Your task to perform on an android device: turn on data saver in the chrome app Image 0: 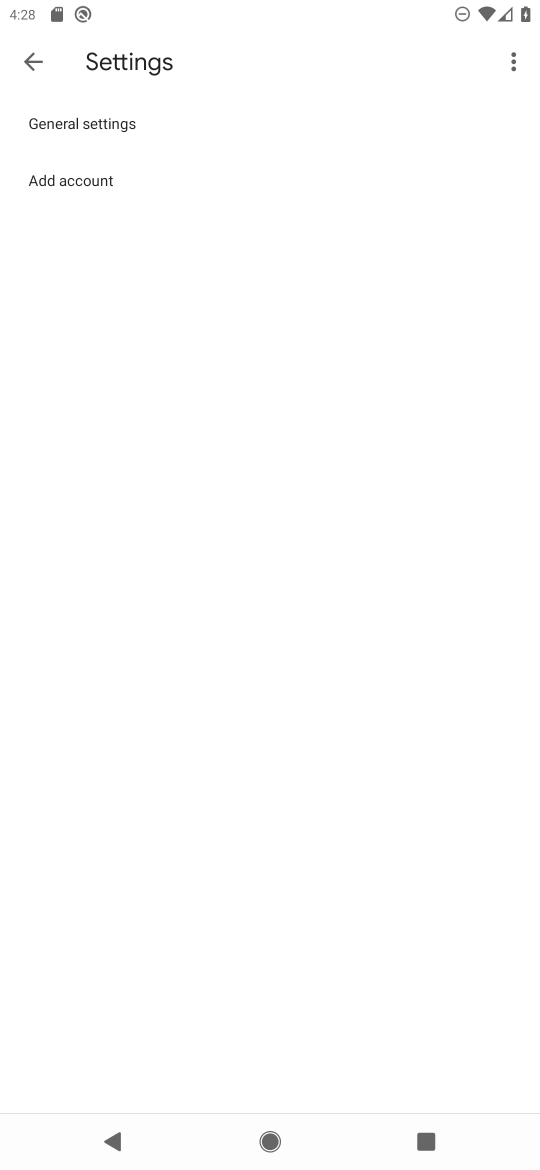
Step 0: press home button
Your task to perform on an android device: turn on data saver in the chrome app Image 1: 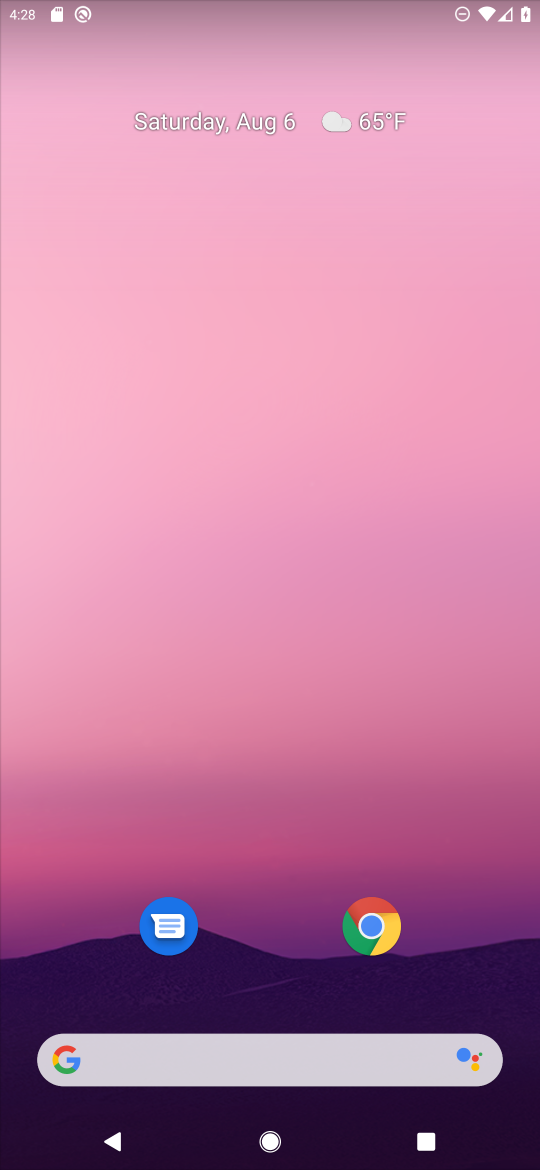
Step 1: click (346, 923)
Your task to perform on an android device: turn on data saver in the chrome app Image 2: 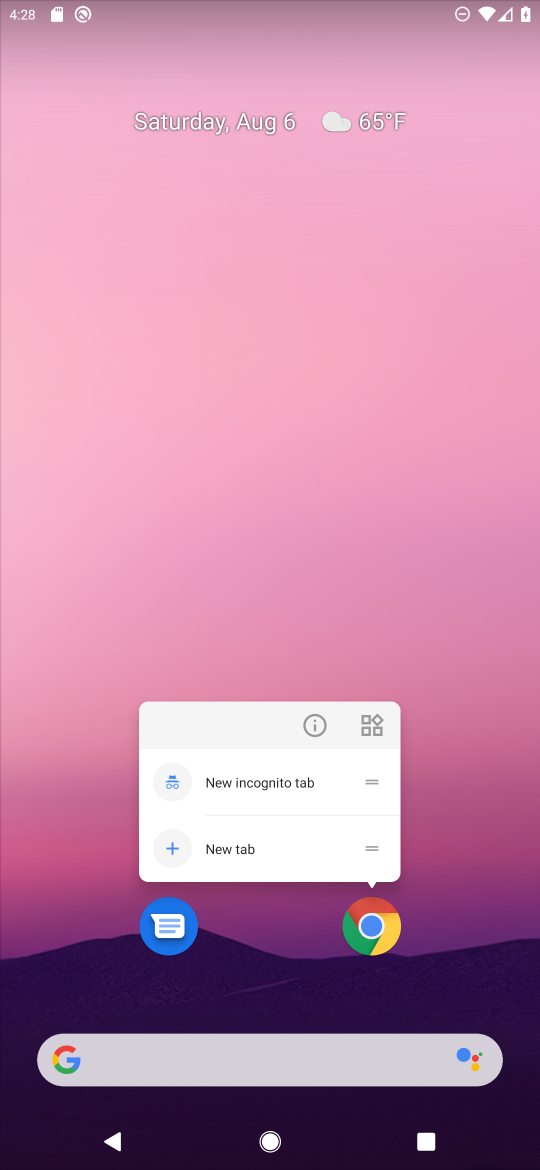
Step 2: click (342, 931)
Your task to perform on an android device: turn on data saver in the chrome app Image 3: 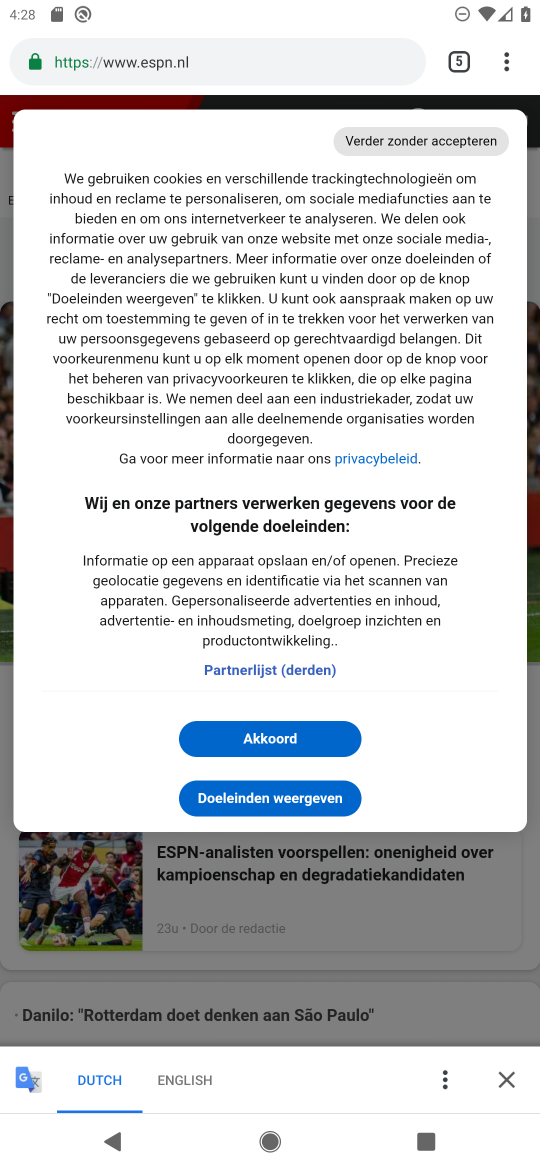
Step 3: click (509, 70)
Your task to perform on an android device: turn on data saver in the chrome app Image 4: 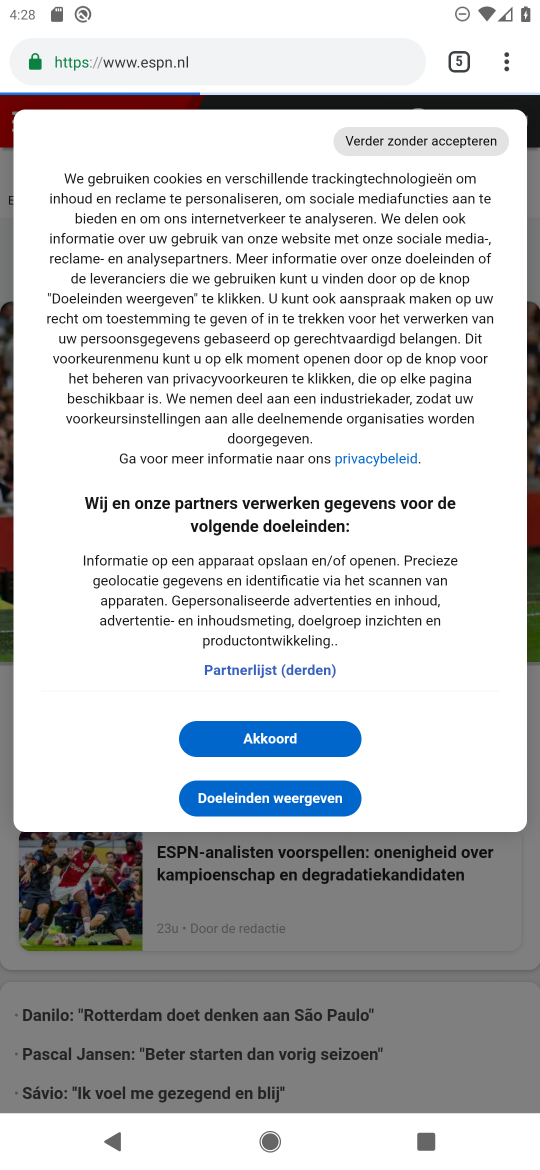
Step 4: drag from (505, 61) to (295, 735)
Your task to perform on an android device: turn on data saver in the chrome app Image 5: 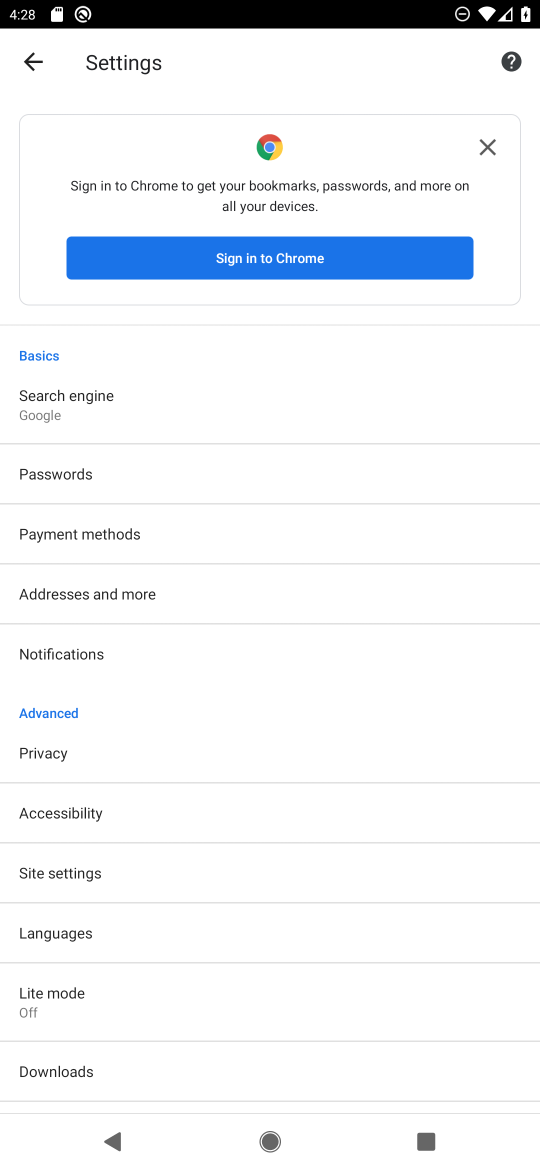
Step 5: click (111, 1011)
Your task to perform on an android device: turn on data saver in the chrome app Image 6: 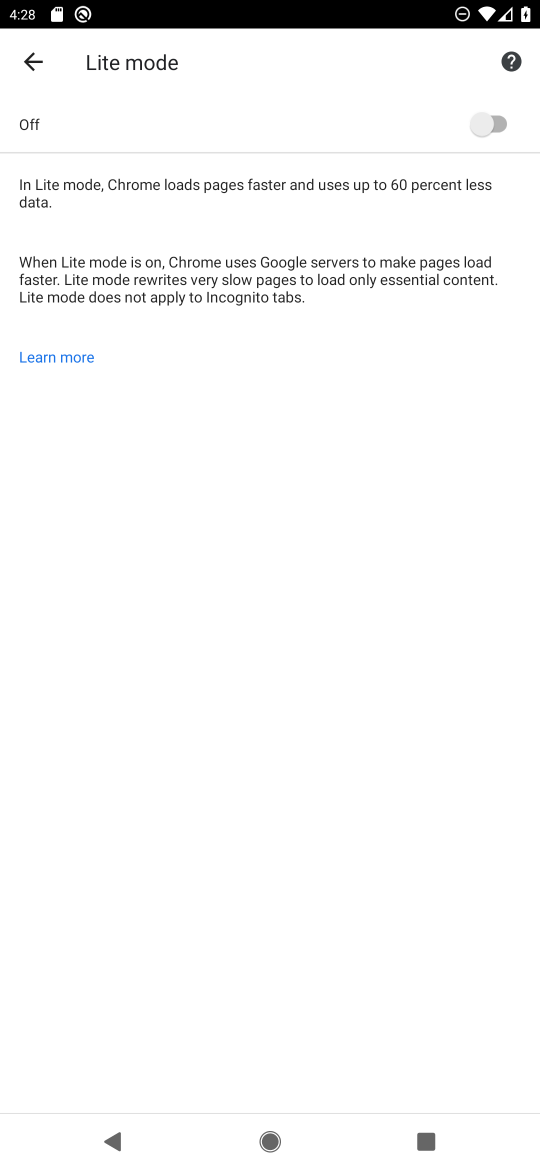
Step 6: click (494, 119)
Your task to perform on an android device: turn on data saver in the chrome app Image 7: 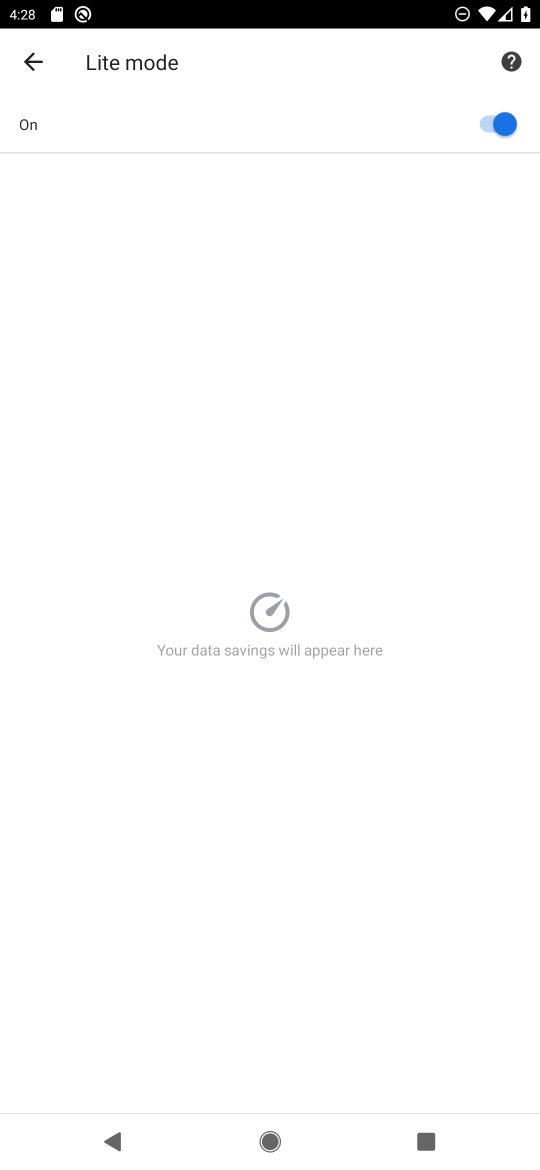
Step 7: task complete